Your task to perform on an android device: turn notification dots on Image 0: 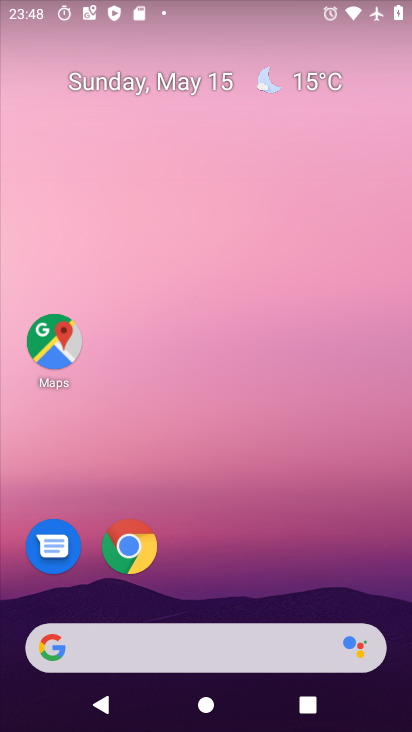
Step 0: click (327, 238)
Your task to perform on an android device: turn notification dots on Image 1: 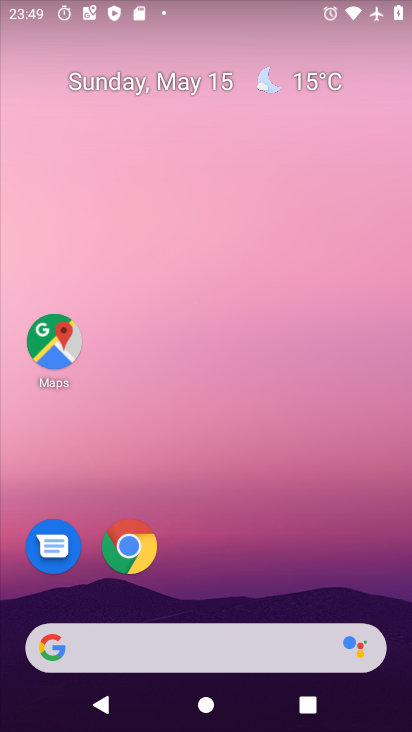
Step 1: drag from (283, 660) to (51, 0)
Your task to perform on an android device: turn notification dots on Image 2: 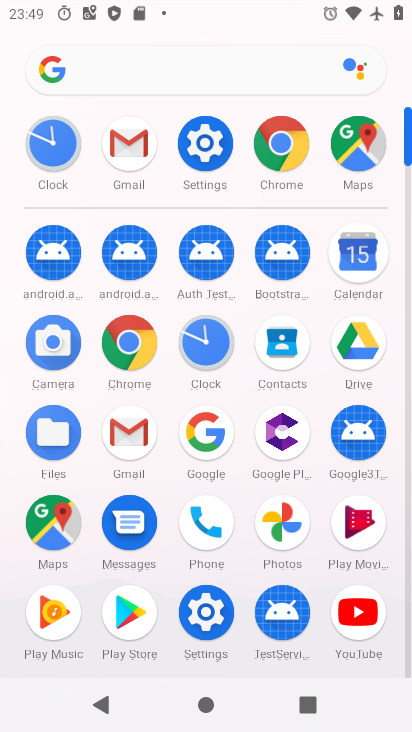
Step 2: drag from (215, 545) to (55, 69)
Your task to perform on an android device: turn notification dots on Image 3: 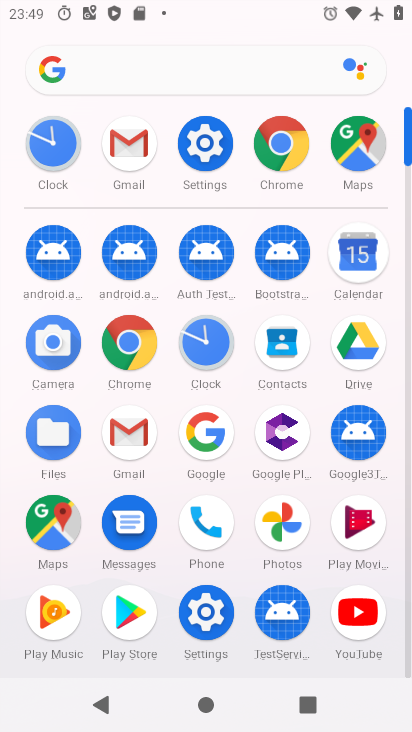
Step 3: click (197, 142)
Your task to perform on an android device: turn notification dots on Image 4: 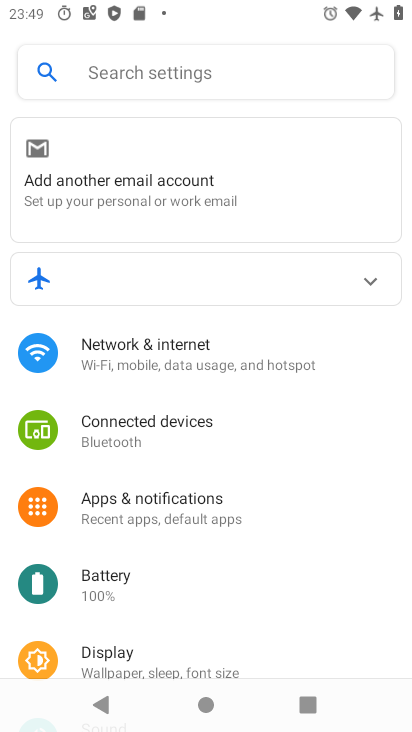
Step 4: click (213, 149)
Your task to perform on an android device: turn notification dots on Image 5: 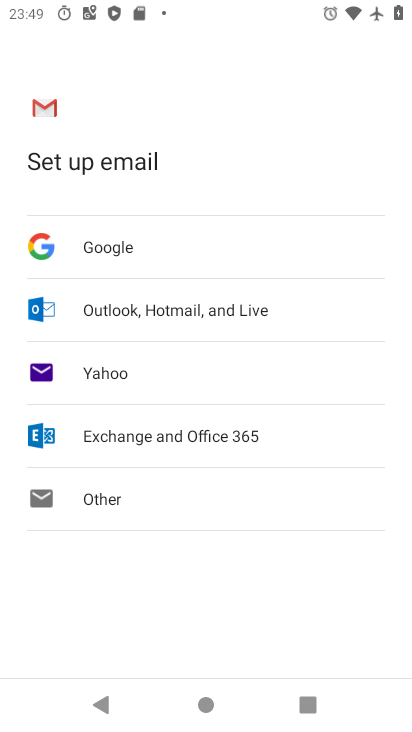
Step 5: press back button
Your task to perform on an android device: turn notification dots on Image 6: 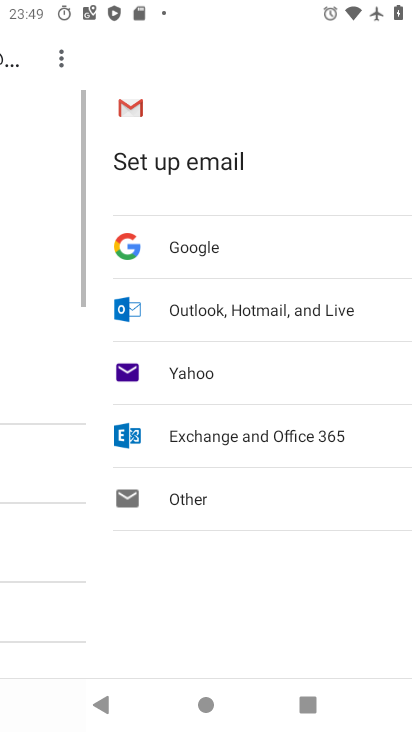
Step 6: press back button
Your task to perform on an android device: turn notification dots on Image 7: 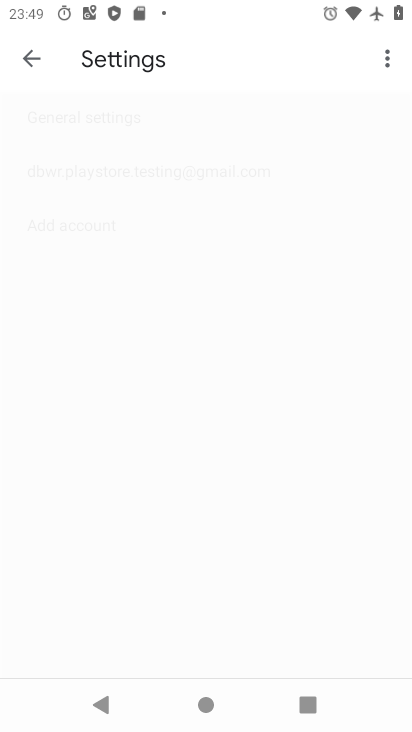
Step 7: press back button
Your task to perform on an android device: turn notification dots on Image 8: 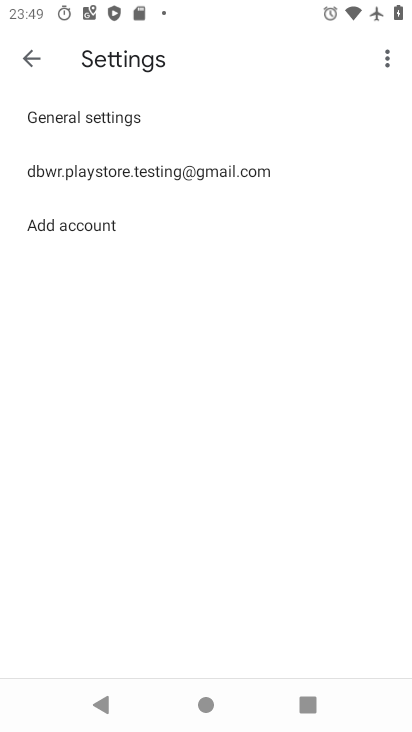
Step 8: press back button
Your task to perform on an android device: turn notification dots on Image 9: 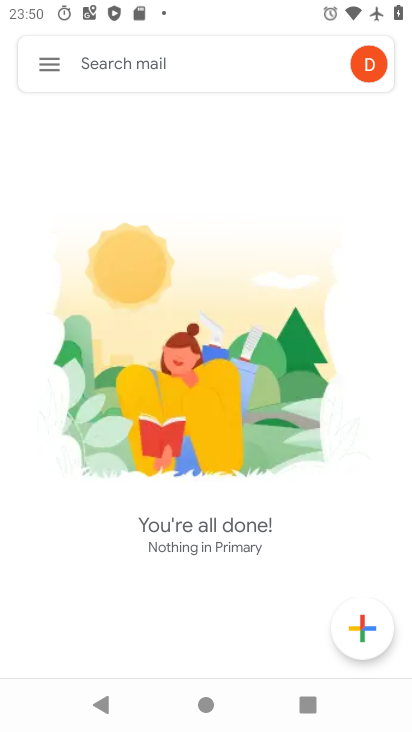
Step 9: press home button
Your task to perform on an android device: turn notification dots on Image 10: 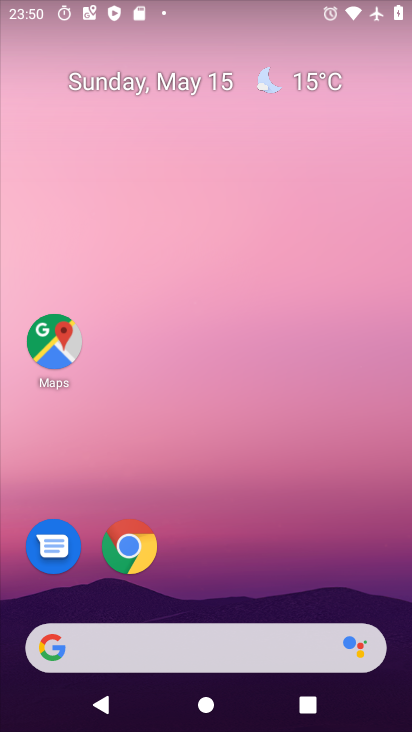
Step 10: drag from (260, 683) to (181, 4)
Your task to perform on an android device: turn notification dots on Image 11: 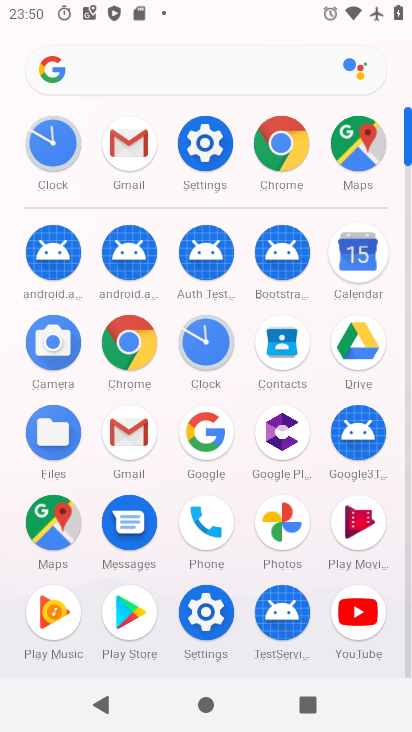
Step 11: click (202, 147)
Your task to perform on an android device: turn notification dots on Image 12: 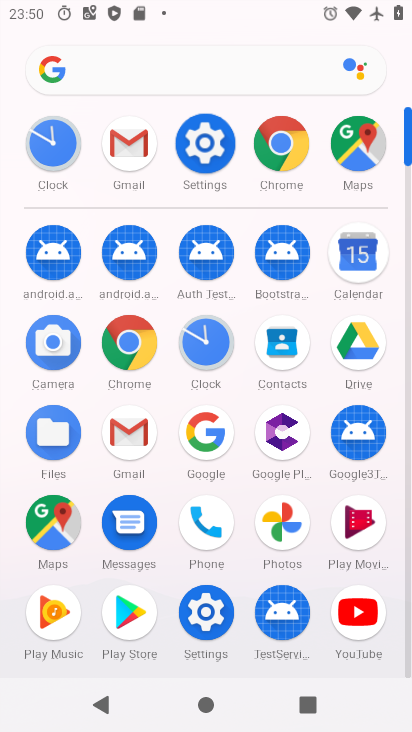
Step 12: click (202, 147)
Your task to perform on an android device: turn notification dots on Image 13: 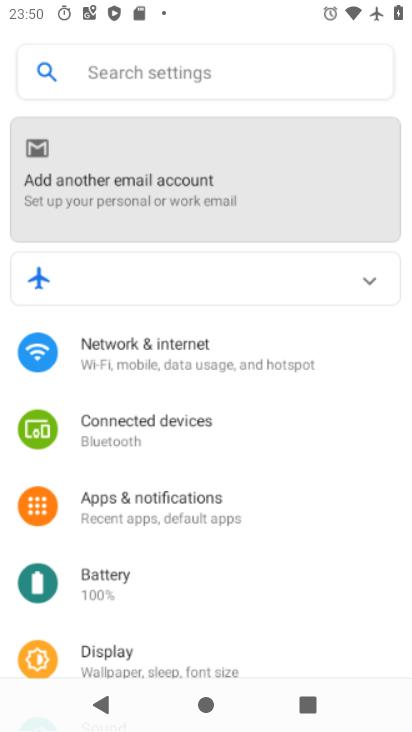
Step 13: click (202, 147)
Your task to perform on an android device: turn notification dots on Image 14: 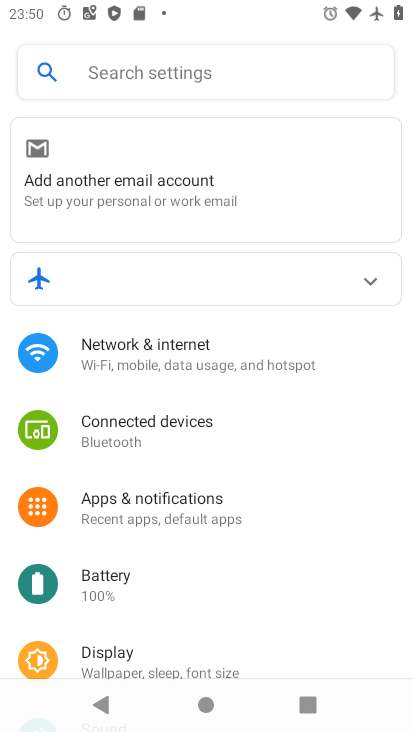
Step 14: click (124, 499)
Your task to perform on an android device: turn notification dots on Image 15: 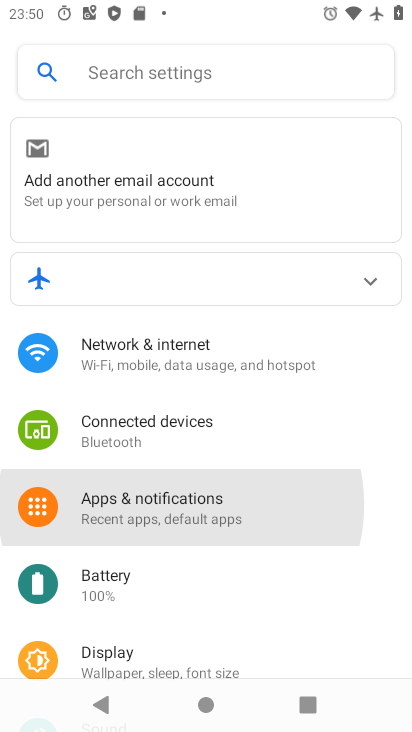
Step 15: click (124, 499)
Your task to perform on an android device: turn notification dots on Image 16: 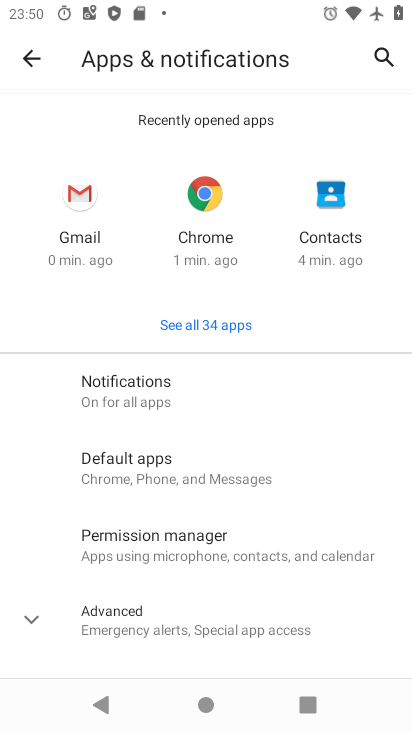
Step 16: click (24, 56)
Your task to perform on an android device: turn notification dots on Image 17: 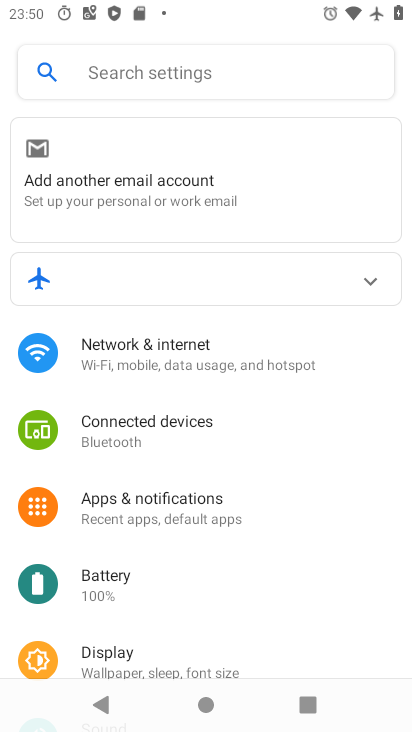
Step 17: click (123, 515)
Your task to perform on an android device: turn notification dots on Image 18: 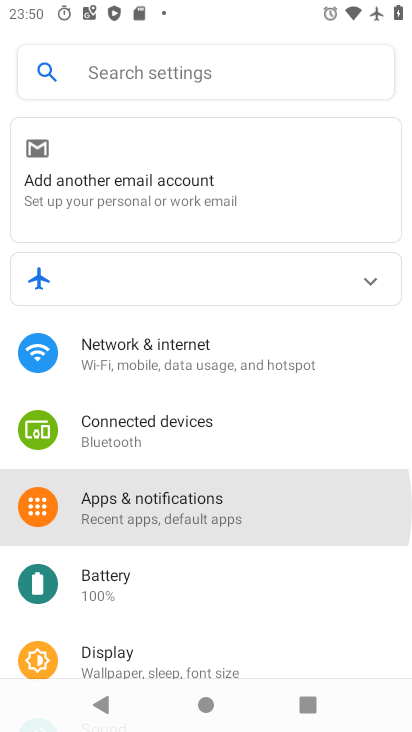
Step 18: click (124, 515)
Your task to perform on an android device: turn notification dots on Image 19: 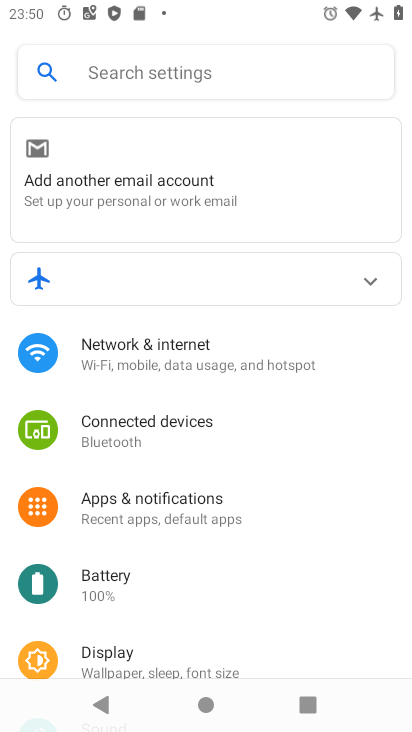
Step 19: click (124, 515)
Your task to perform on an android device: turn notification dots on Image 20: 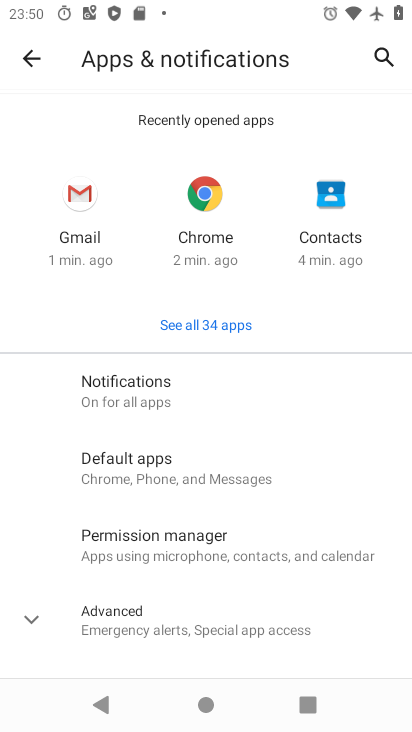
Step 20: click (121, 388)
Your task to perform on an android device: turn notification dots on Image 21: 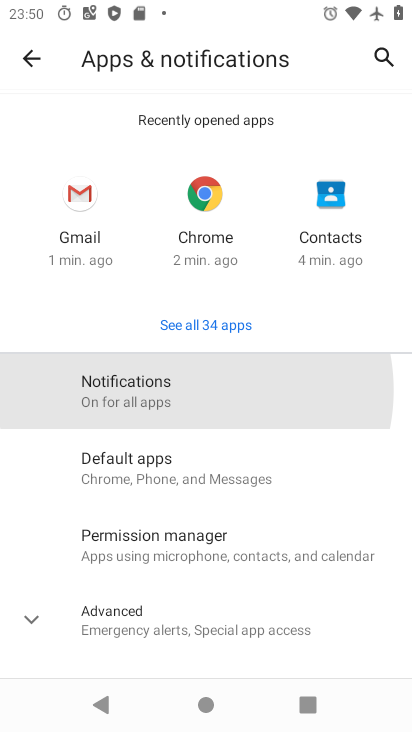
Step 21: click (120, 391)
Your task to perform on an android device: turn notification dots on Image 22: 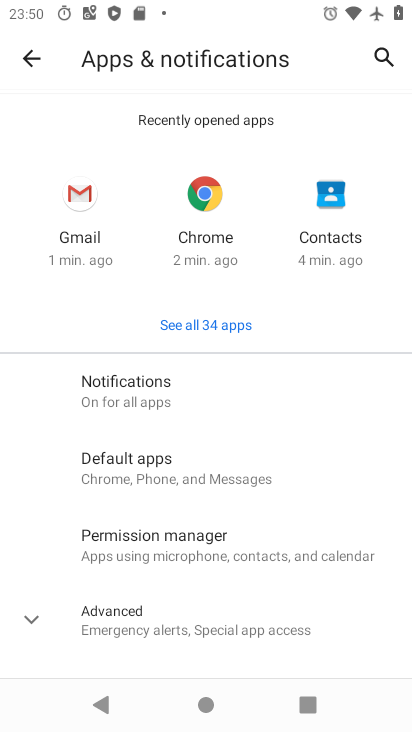
Step 22: click (120, 391)
Your task to perform on an android device: turn notification dots on Image 23: 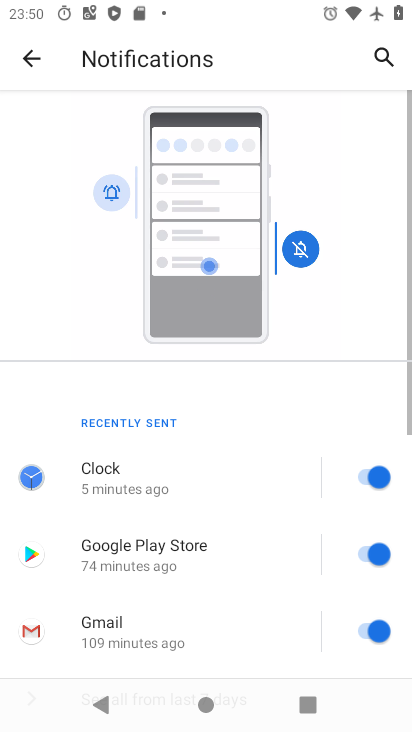
Step 23: drag from (162, 551) to (134, 103)
Your task to perform on an android device: turn notification dots on Image 24: 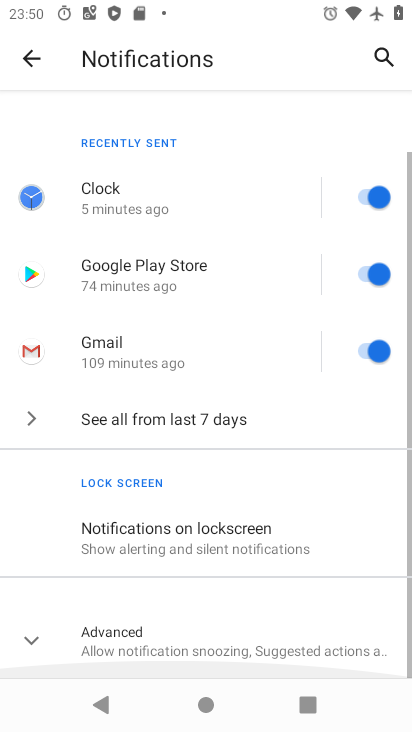
Step 24: drag from (234, 464) to (216, 63)
Your task to perform on an android device: turn notification dots on Image 25: 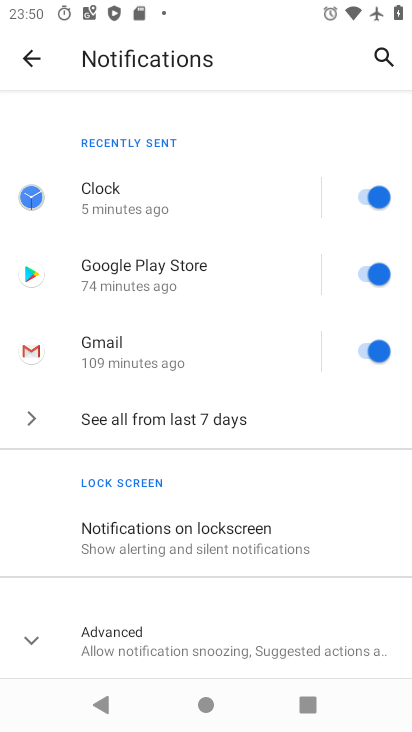
Step 25: click (130, 640)
Your task to perform on an android device: turn notification dots on Image 26: 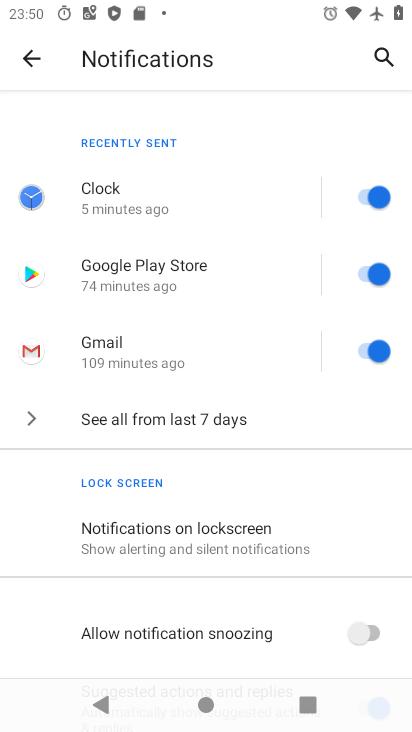
Step 26: drag from (149, 465) to (128, 33)
Your task to perform on an android device: turn notification dots on Image 27: 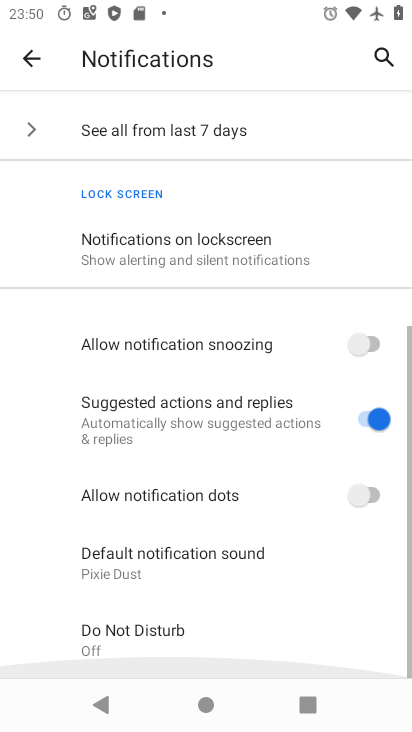
Step 27: drag from (192, 379) to (197, 103)
Your task to perform on an android device: turn notification dots on Image 28: 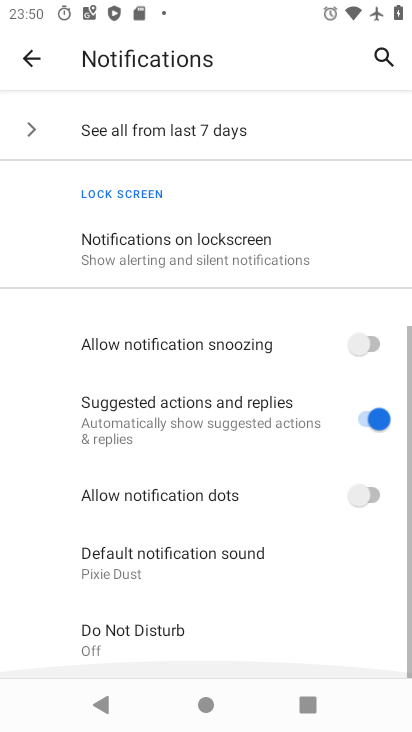
Step 28: drag from (182, 461) to (152, 126)
Your task to perform on an android device: turn notification dots on Image 29: 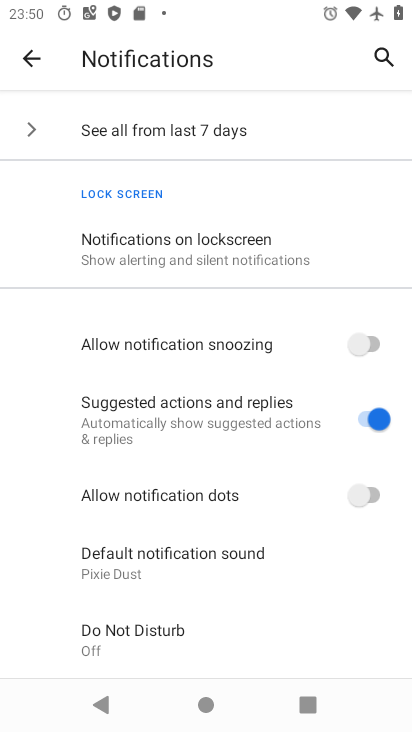
Step 29: click (359, 496)
Your task to perform on an android device: turn notification dots on Image 30: 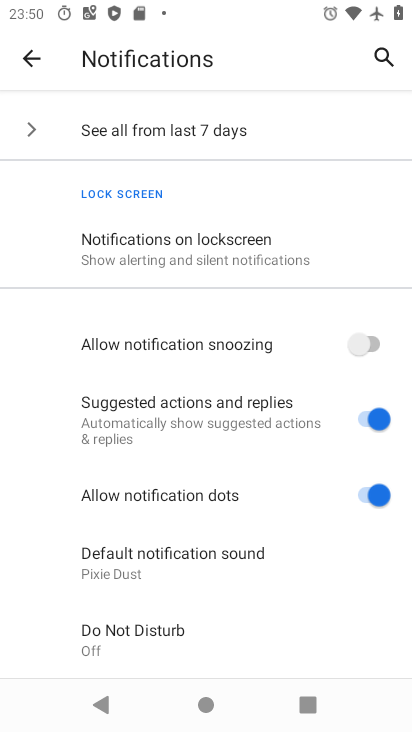
Step 30: task complete